Your task to perform on an android device: toggle show notifications on the lock screen Image 0: 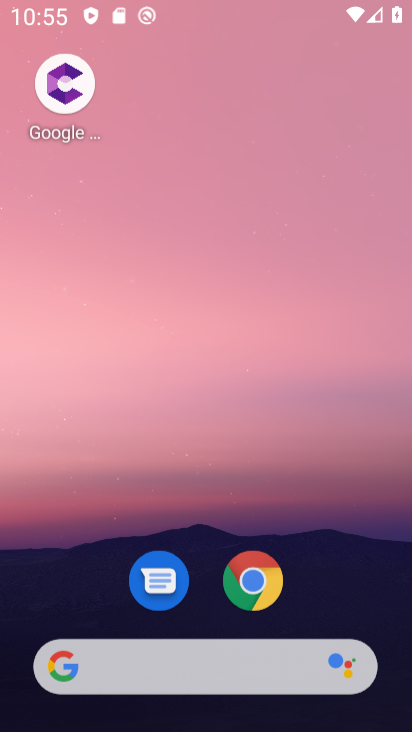
Step 0: click (249, 584)
Your task to perform on an android device: toggle show notifications on the lock screen Image 1: 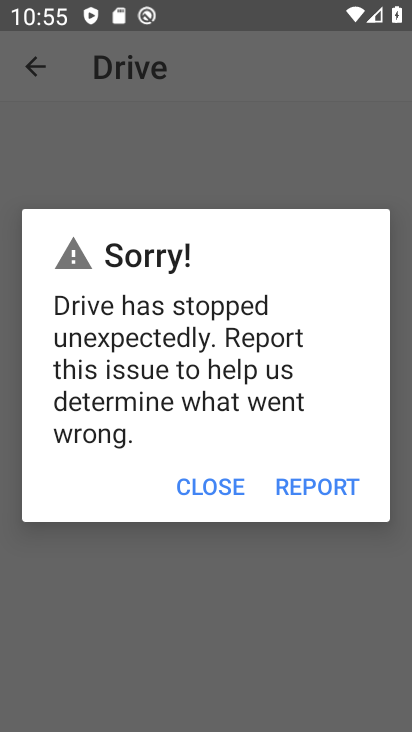
Step 1: click (207, 480)
Your task to perform on an android device: toggle show notifications on the lock screen Image 2: 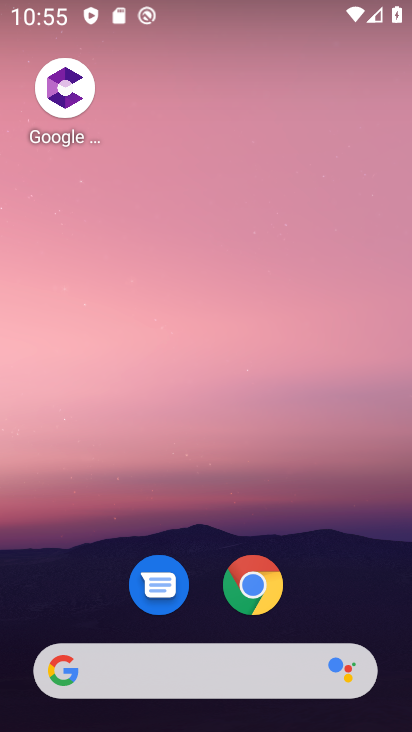
Step 2: drag from (187, 667) to (197, 220)
Your task to perform on an android device: toggle show notifications on the lock screen Image 3: 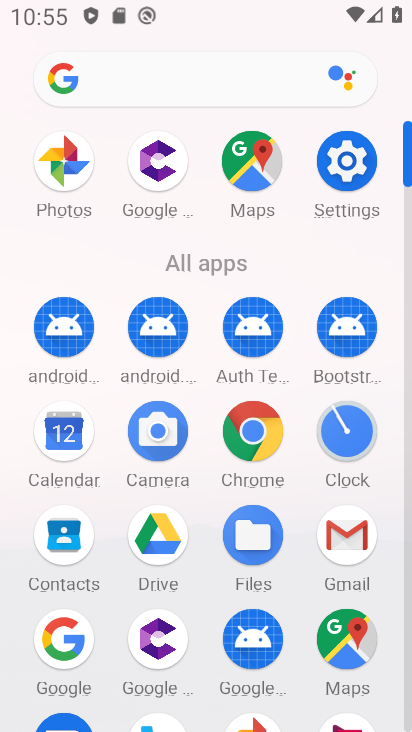
Step 3: click (349, 187)
Your task to perform on an android device: toggle show notifications on the lock screen Image 4: 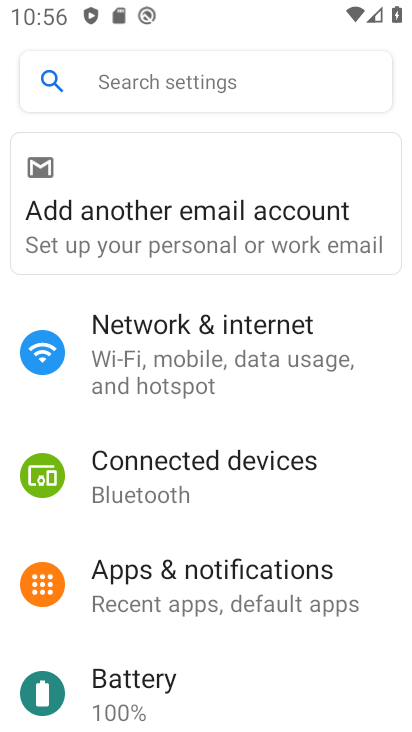
Step 4: click (240, 596)
Your task to perform on an android device: toggle show notifications on the lock screen Image 5: 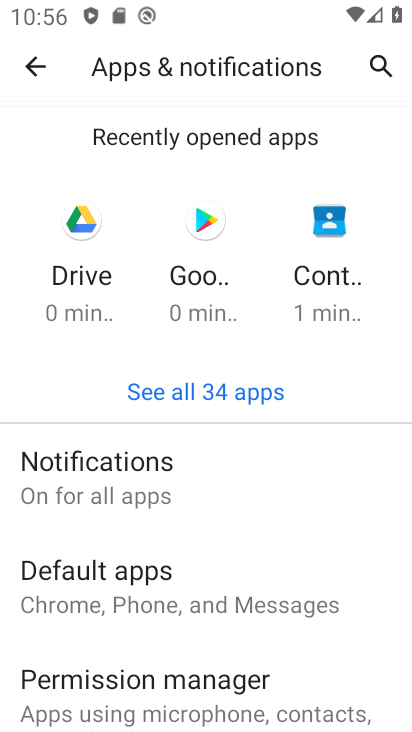
Step 5: drag from (226, 651) to (218, 386)
Your task to perform on an android device: toggle show notifications on the lock screen Image 6: 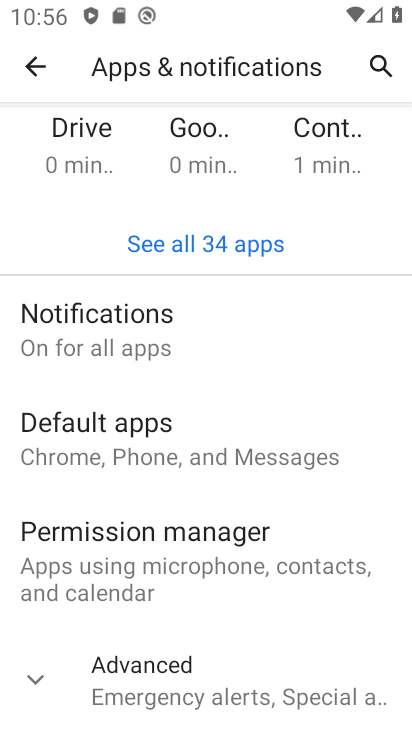
Step 6: click (159, 328)
Your task to perform on an android device: toggle show notifications on the lock screen Image 7: 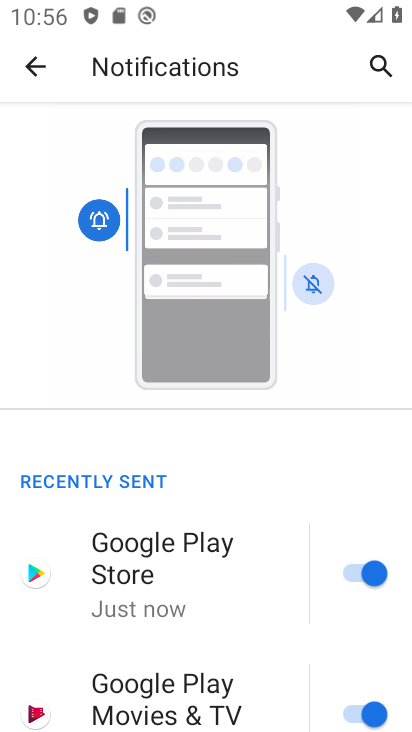
Step 7: drag from (180, 571) to (164, 210)
Your task to perform on an android device: toggle show notifications on the lock screen Image 8: 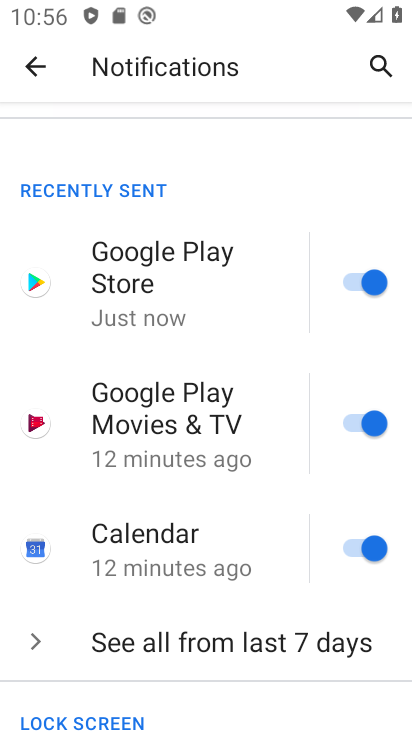
Step 8: drag from (191, 688) to (177, 329)
Your task to perform on an android device: toggle show notifications on the lock screen Image 9: 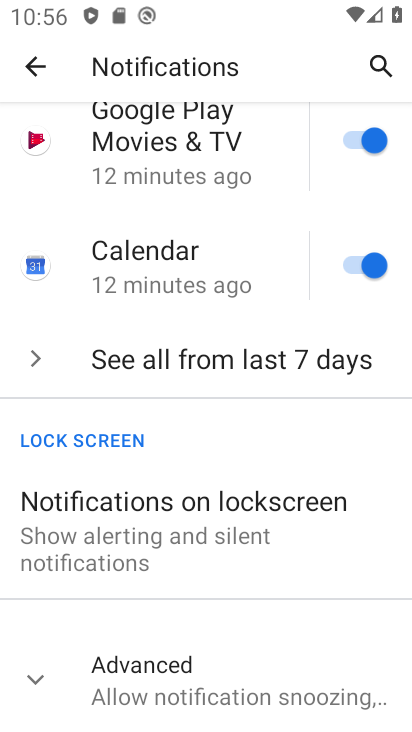
Step 9: click (168, 551)
Your task to perform on an android device: toggle show notifications on the lock screen Image 10: 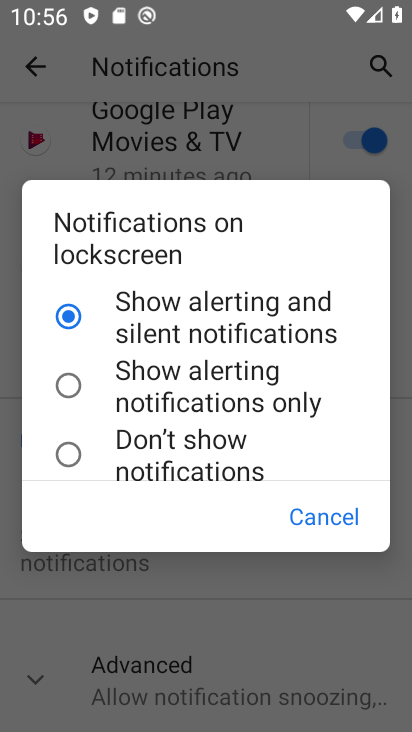
Step 10: click (180, 329)
Your task to perform on an android device: toggle show notifications on the lock screen Image 11: 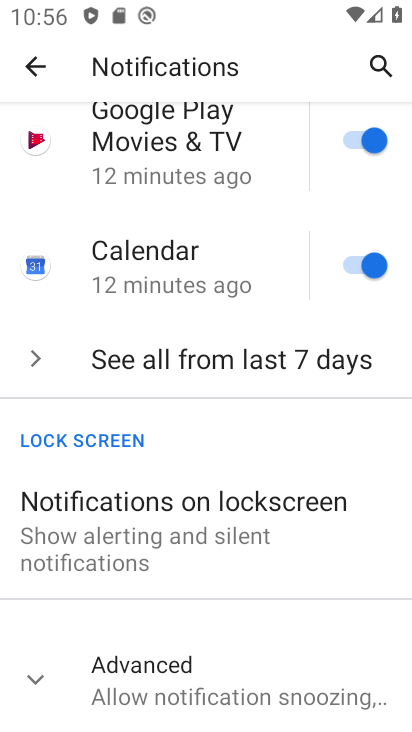
Step 11: task complete